Your task to perform on an android device: allow notifications from all sites in the chrome app Image 0: 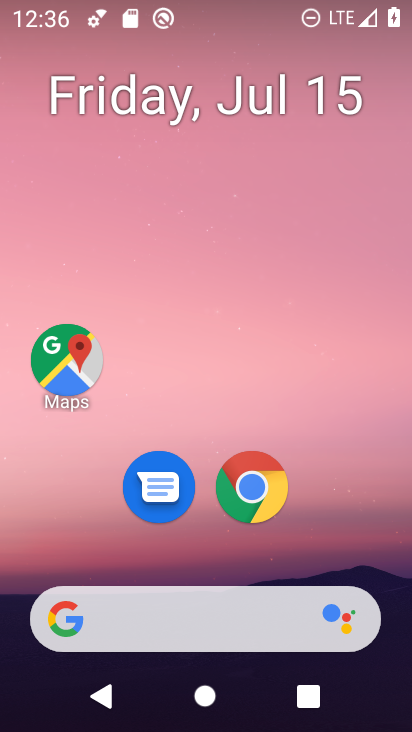
Step 0: drag from (261, 523) to (232, 105)
Your task to perform on an android device: allow notifications from all sites in the chrome app Image 1: 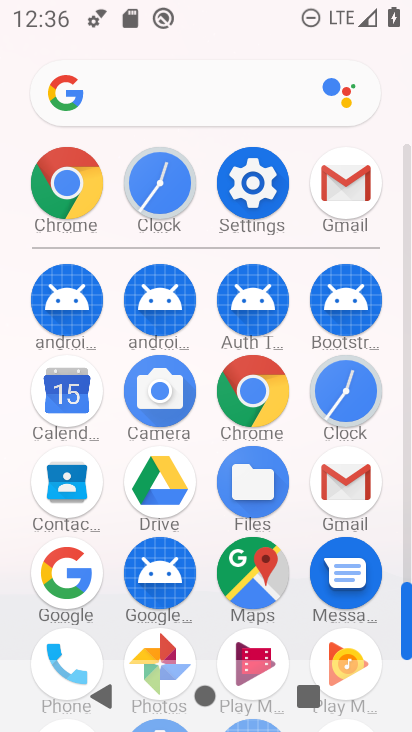
Step 1: click (83, 190)
Your task to perform on an android device: allow notifications from all sites in the chrome app Image 2: 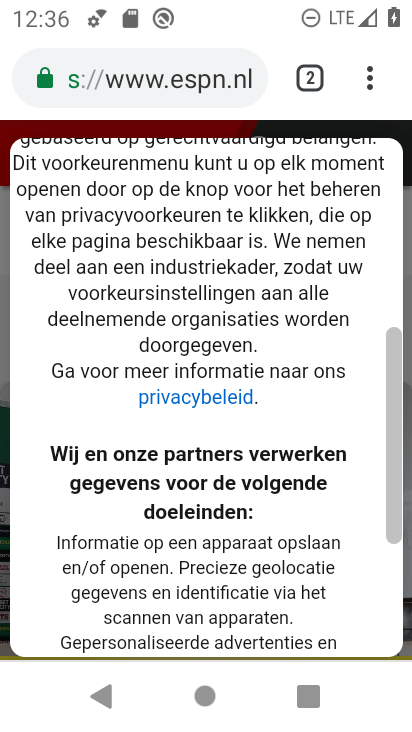
Step 2: click (370, 70)
Your task to perform on an android device: allow notifications from all sites in the chrome app Image 3: 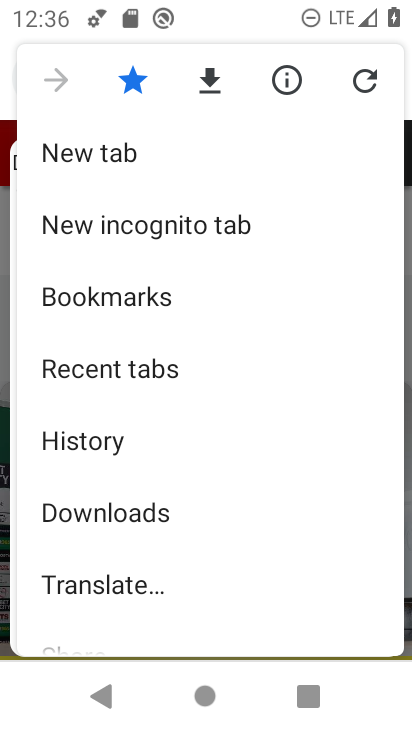
Step 3: drag from (293, 391) to (289, 98)
Your task to perform on an android device: allow notifications from all sites in the chrome app Image 4: 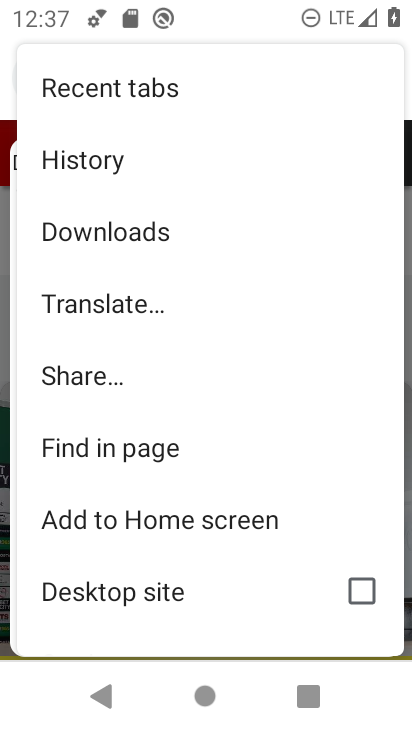
Step 4: drag from (186, 592) to (216, 289)
Your task to perform on an android device: allow notifications from all sites in the chrome app Image 5: 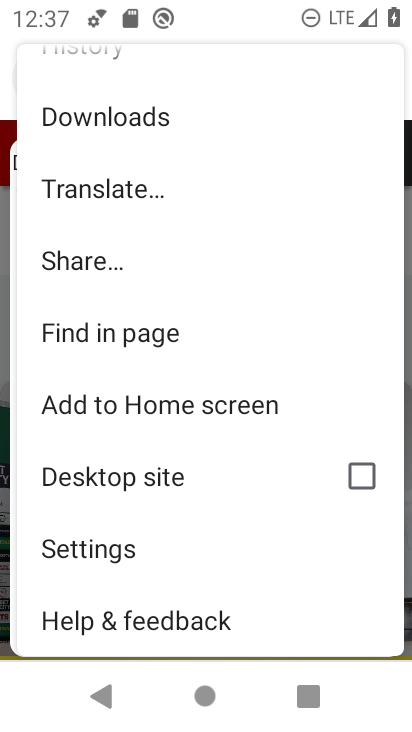
Step 5: click (114, 550)
Your task to perform on an android device: allow notifications from all sites in the chrome app Image 6: 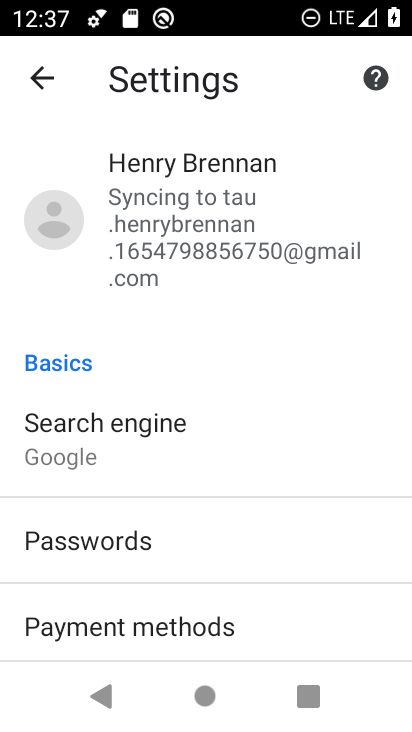
Step 6: drag from (114, 550) to (148, 367)
Your task to perform on an android device: allow notifications from all sites in the chrome app Image 7: 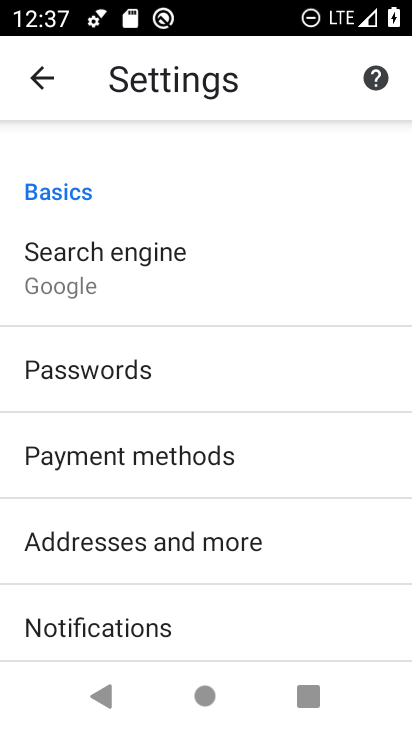
Step 7: drag from (234, 565) to (211, 268)
Your task to perform on an android device: allow notifications from all sites in the chrome app Image 8: 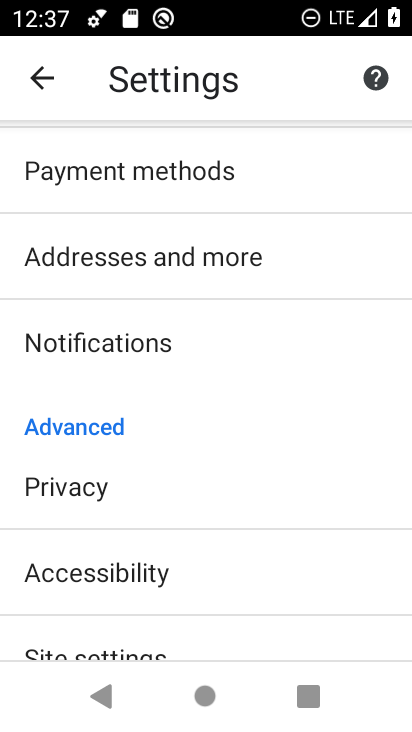
Step 8: click (93, 361)
Your task to perform on an android device: allow notifications from all sites in the chrome app Image 9: 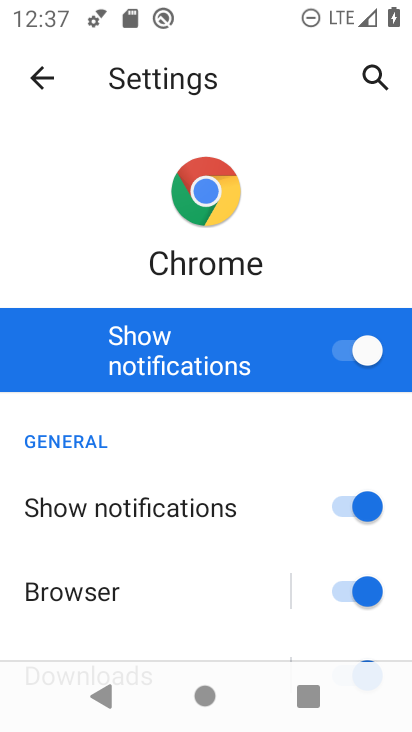
Step 9: task complete